Your task to perform on an android device: delete the emails in spam in the gmail app Image 0: 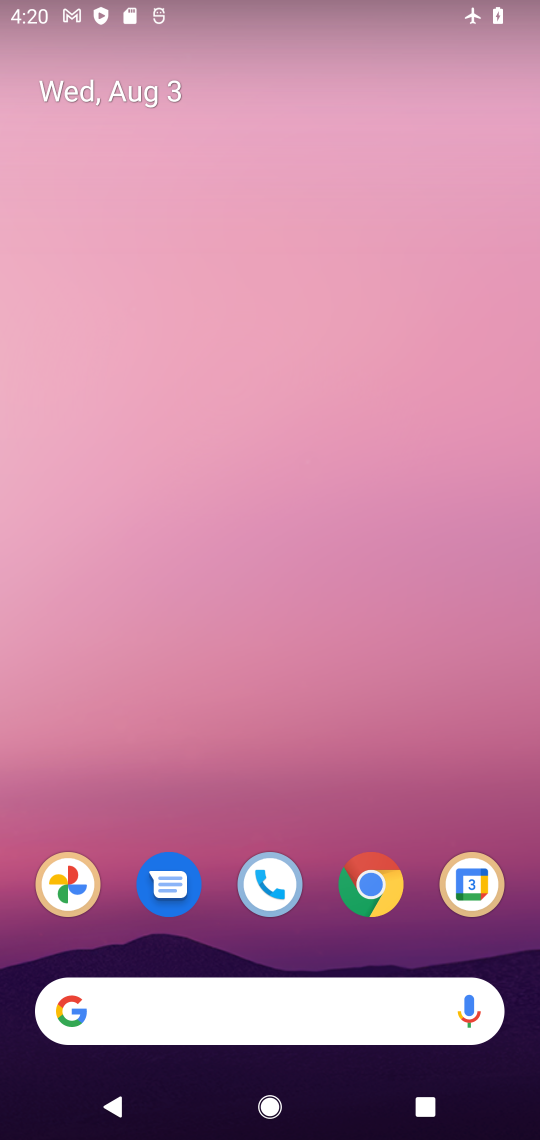
Step 0: drag from (179, 1097) to (377, 136)
Your task to perform on an android device: delete the emails in spam in the gmail app Image 1: 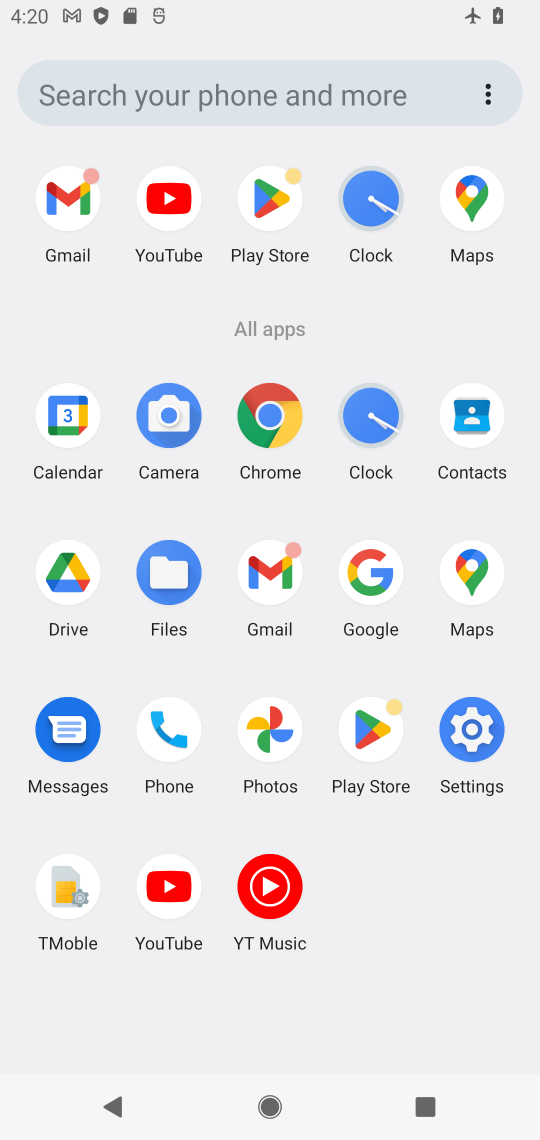
Step 1: click (61, 194)
Your task to perform on an android device: delete the emails in spam in the gmail app Image 2: 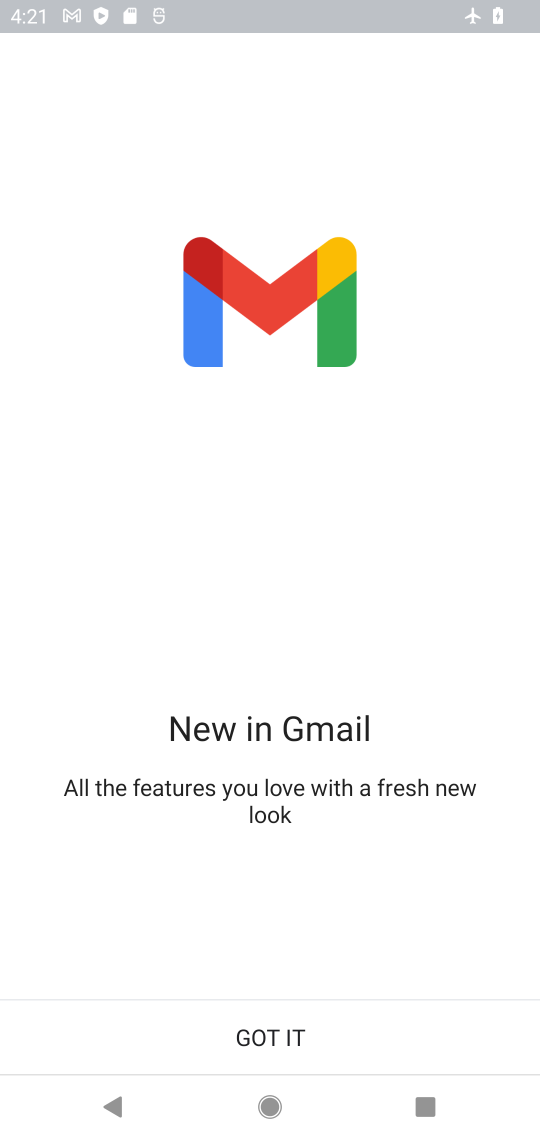
Step 2: click (246, 1051)
Your task to perform on an android device: delete the emails in spam in the gmail app Image 3: 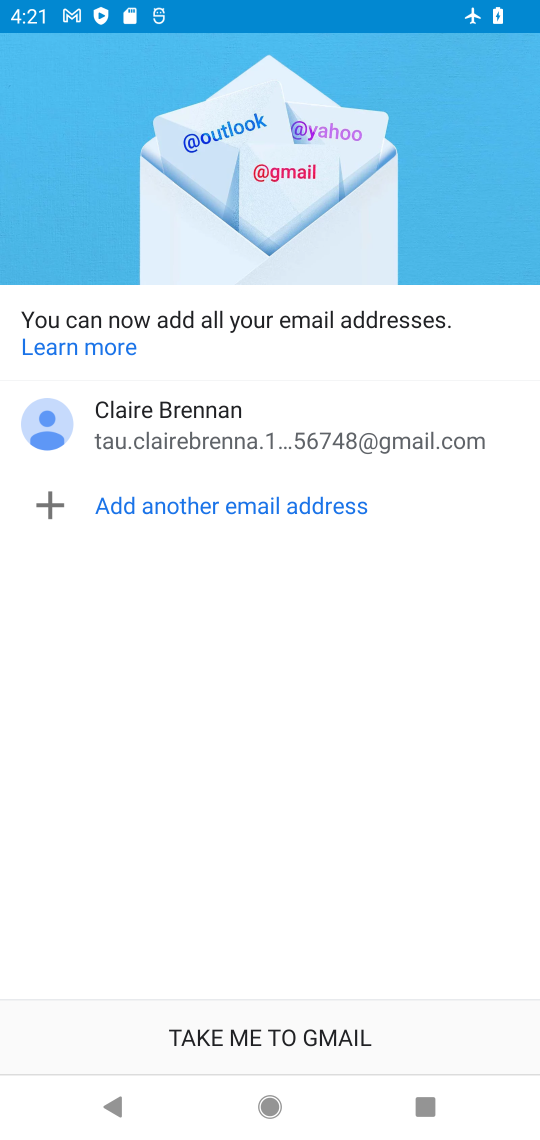
Step 3: click (238, 1041)
Your task to perform on an android device: delete the emails in spam in the gmail app Image 4: 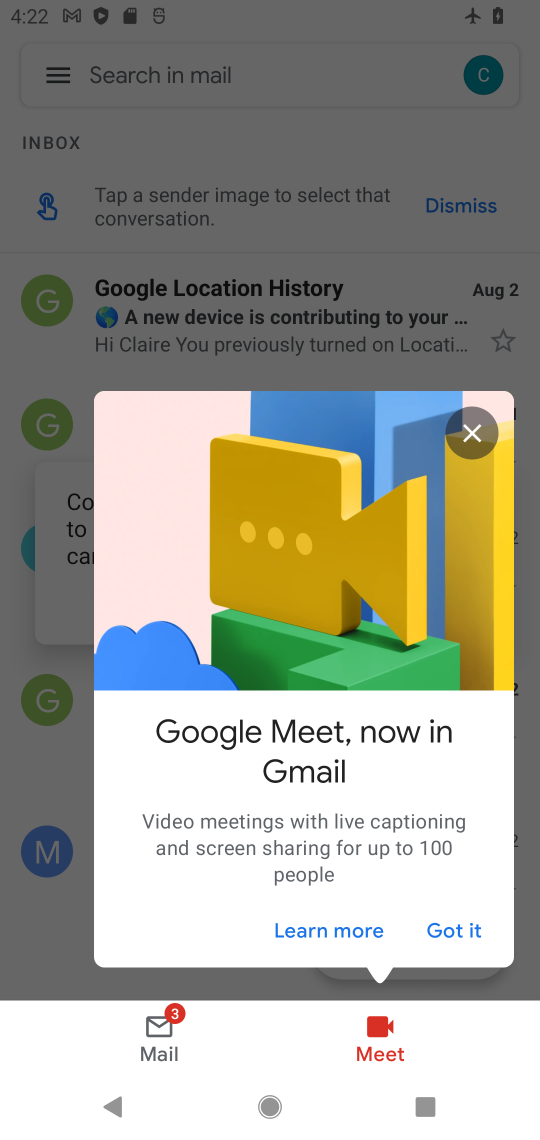
Step 4: click (475, 926)
Your task to perform on an android device: delete the emails in spam in the gmail app Image 5: 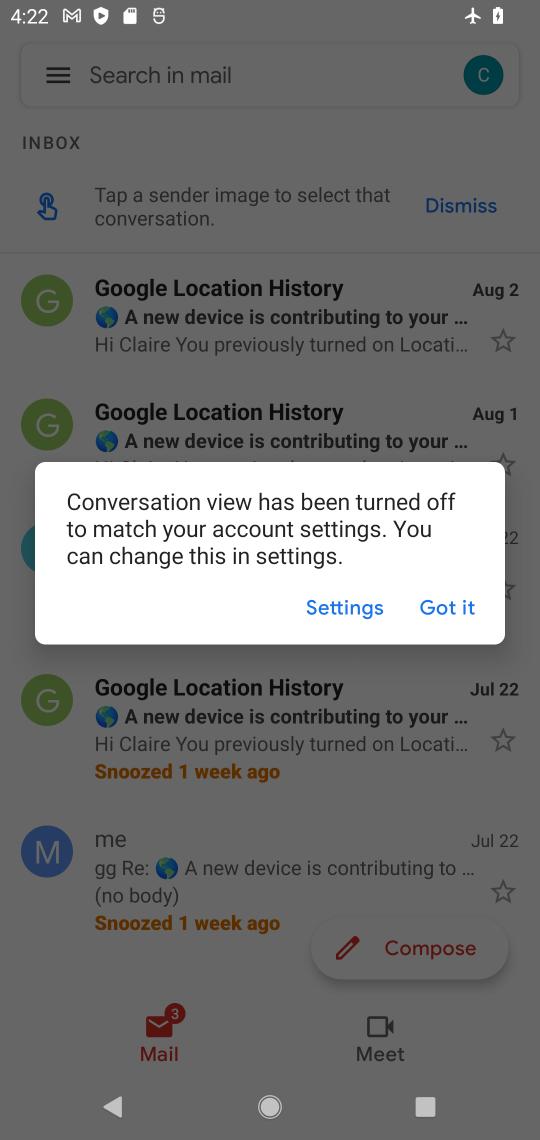
Step 5: click (474, 615)
Your task to perform on an android device: delete the emails in spam in the gmail app Image 6: 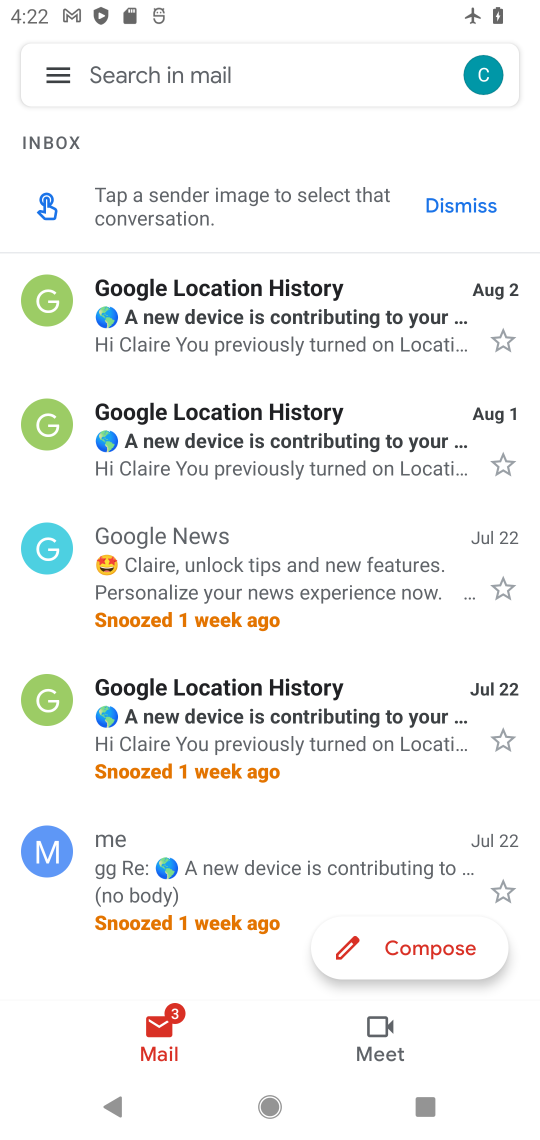
Step 6: click (59, 91)
Your task to perform on an android device: delete the emails in spam in the gmail app Image 7: 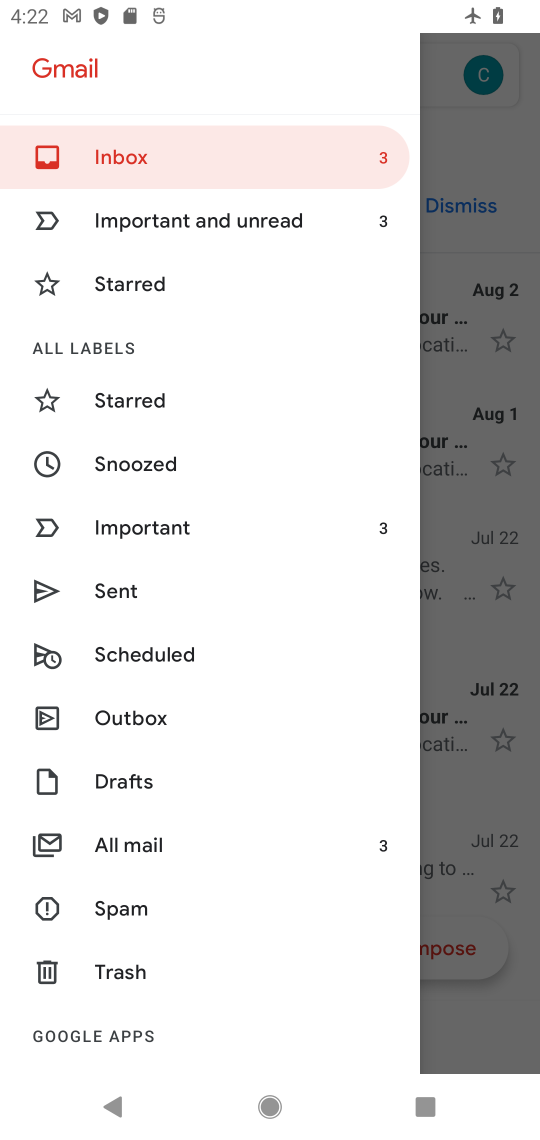
Step 7: click (119, 909)
Your task to perform on an android device: delete the emails in spam in the gmail app Image 8: 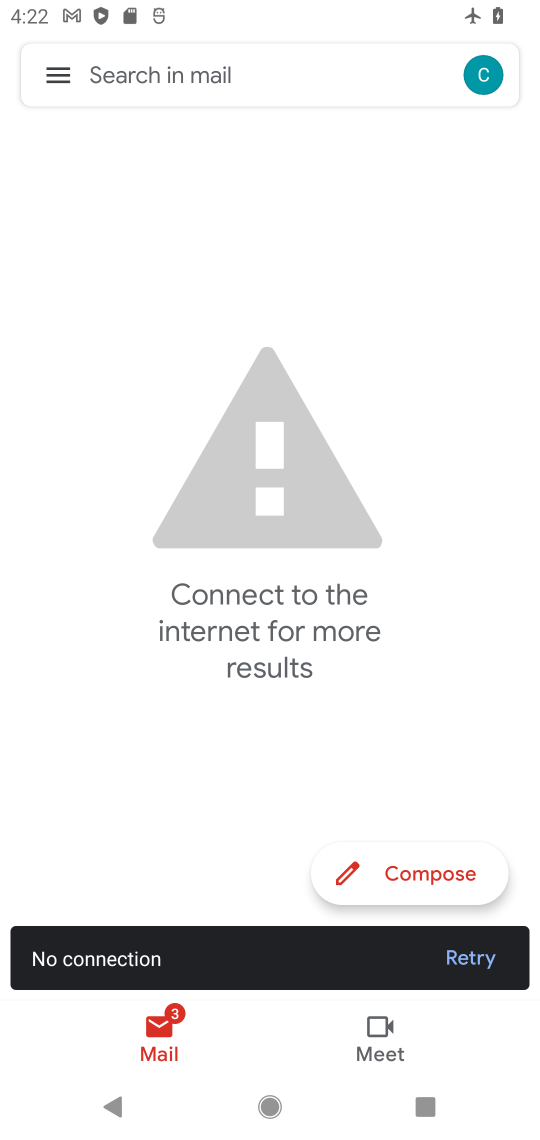
Step 8: task complete